Your task to perform on an android device: Go to internet settings Image 0: 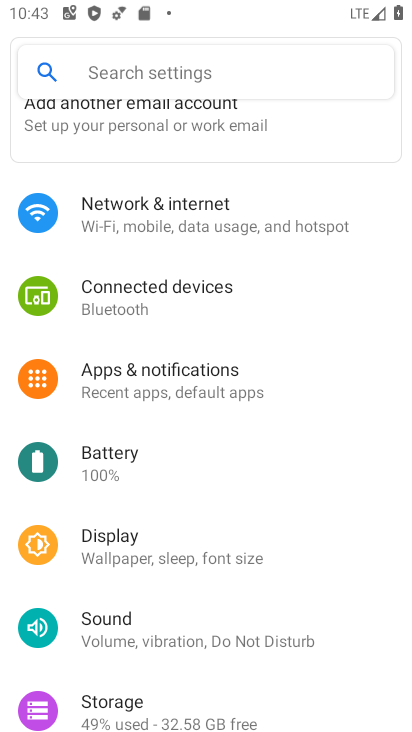
Step 0: press home button
Your task to perform on an android device: Go to internet settings Image 1: 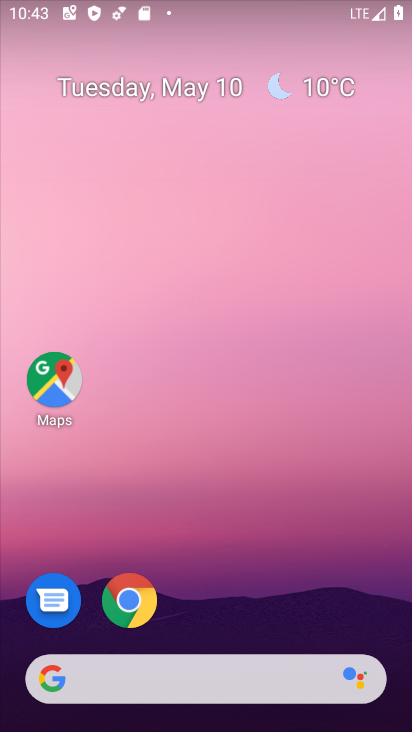
Step 1: drag from (282, 545) to (213, 99)
Your task to perform on an android device: Go to internet settings Image 2: 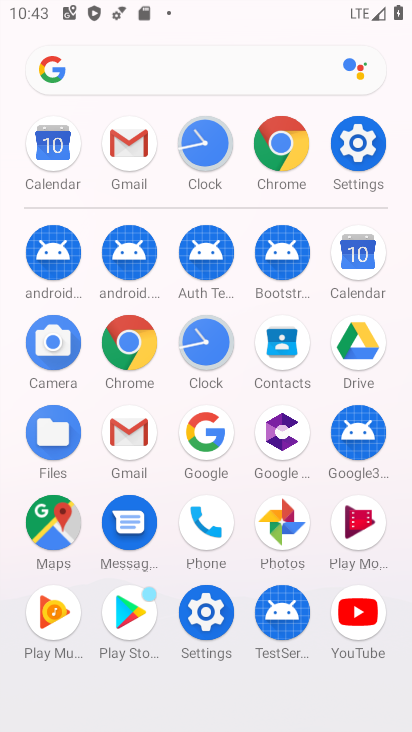
Step 2: click (337, 150)
Your task to perform on an android device: Go to internet settings Image 3: 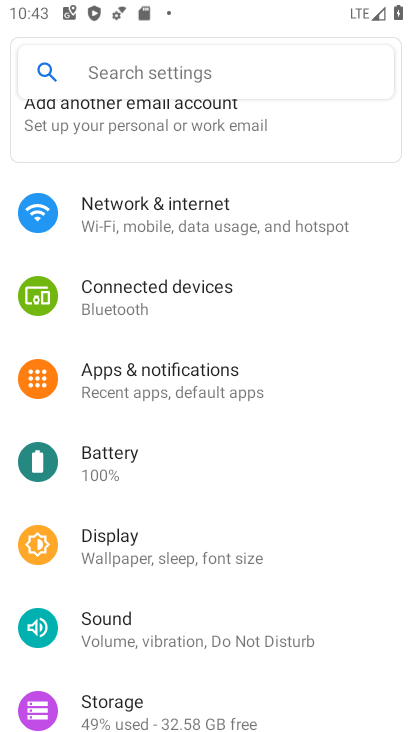
Step 3: click (166, 222)
Your task to perform on an android device: Go to internet settings Image 4: 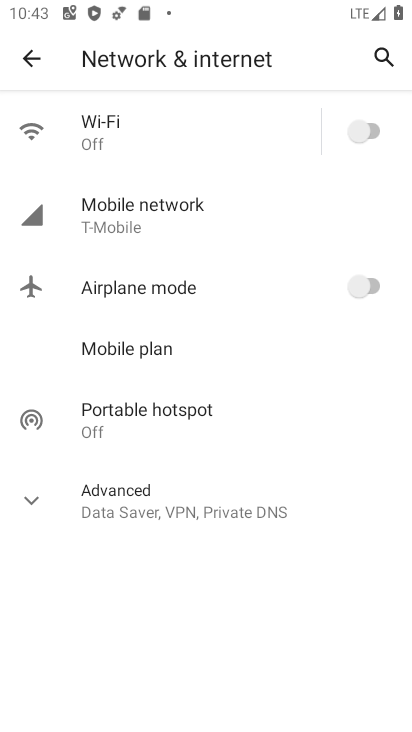
Step 4: task complete